Your task to perform on an android device: Open Google Maps Image 0: 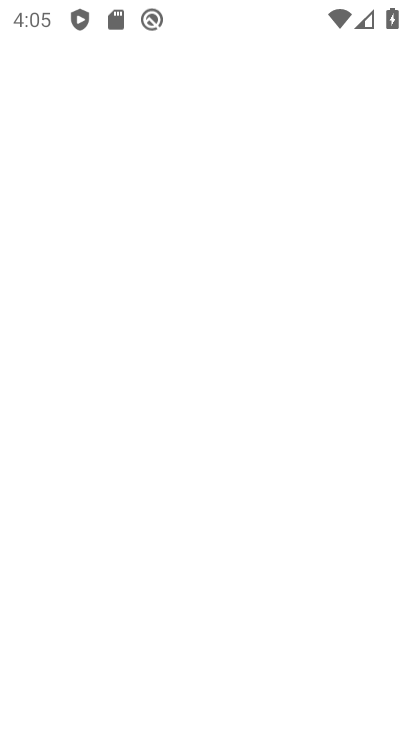
Step 0: press home button
Your task to perform on an android device: Open Google Maps Image 1: 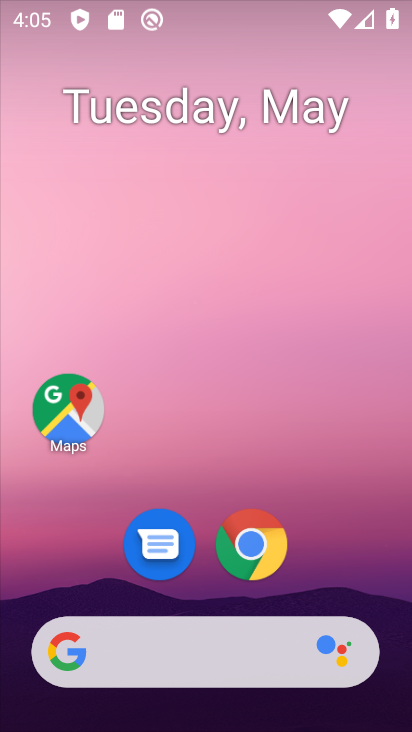
Step 1: drag from (185, 532) to (181, 318)
Your task to perform on an android device: Open Google Maps Image 2: 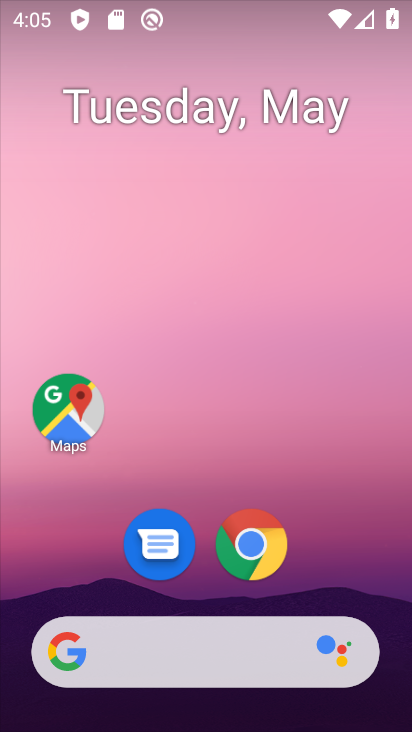
Step 2: click (73, 424)
Your task to perform on an android device: Open Google Maps Image 3: 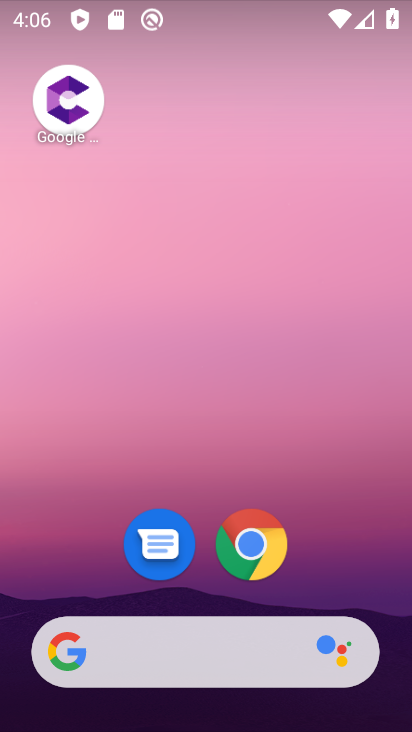
Step 3: drag from (216, 589) to (173, 231)
Your task to perform on an android device: Open Google Maps Image 4: 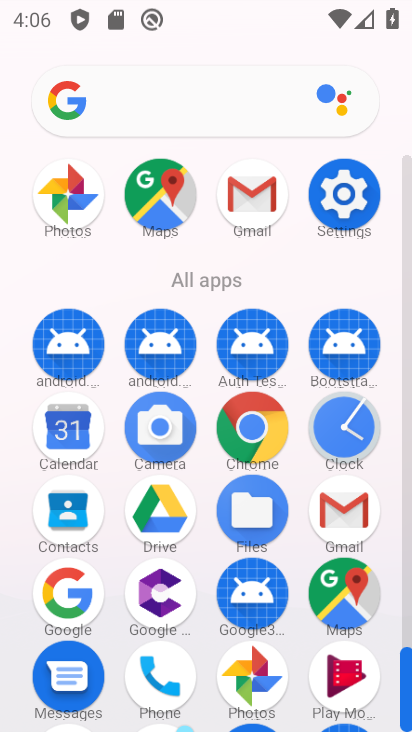
Step 4: click (157, 206)
Your task to perform on an android device: Open Google Maps Image 5: 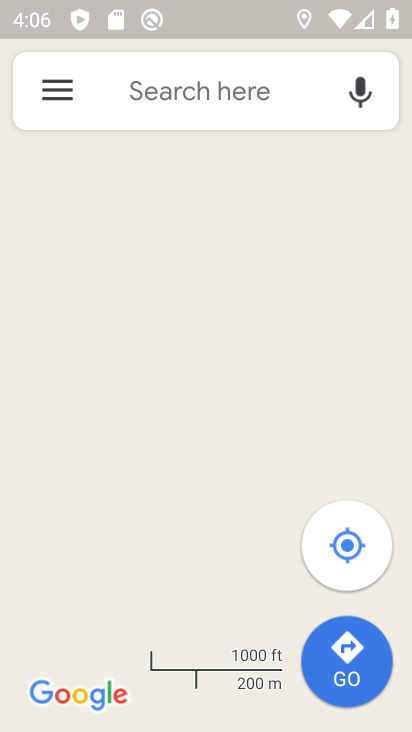
Step 5: task complete